Your task to perform on an android device: change the clock display to show seconds Image 0: 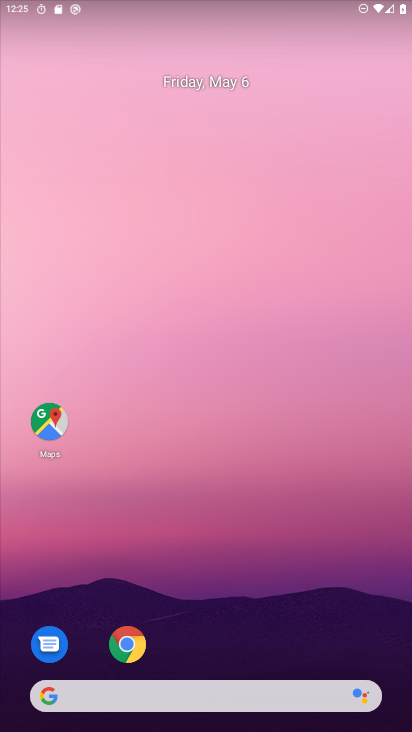
Step 0: drag from (299, 604) to (322, 181)
Your task to perform on an android device: change the clock display to show seconds Image 1: 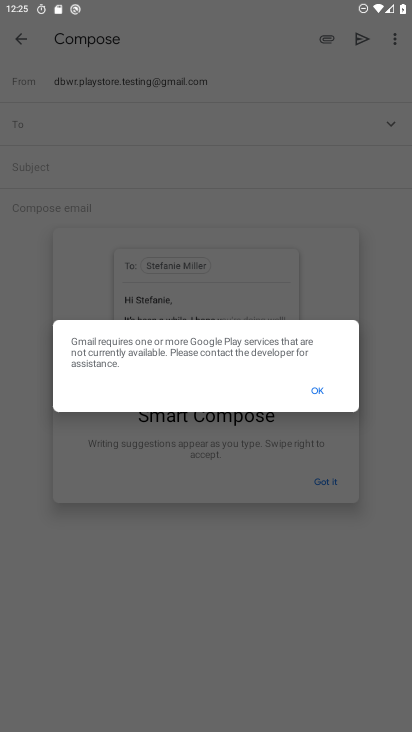
Step 1: press home button
Your task to perform on an android device: change the clock display to show seconds Image 2: 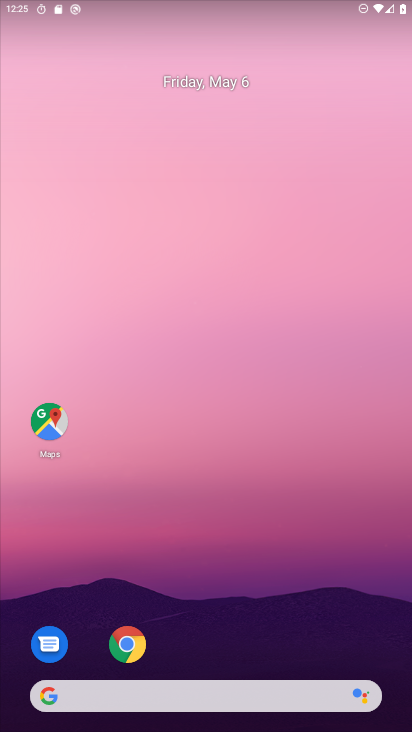
Step 2: drag from (322, 600) to (308, 96)
Your task to perform on an android device: change the clock display to show seconds Image 3: 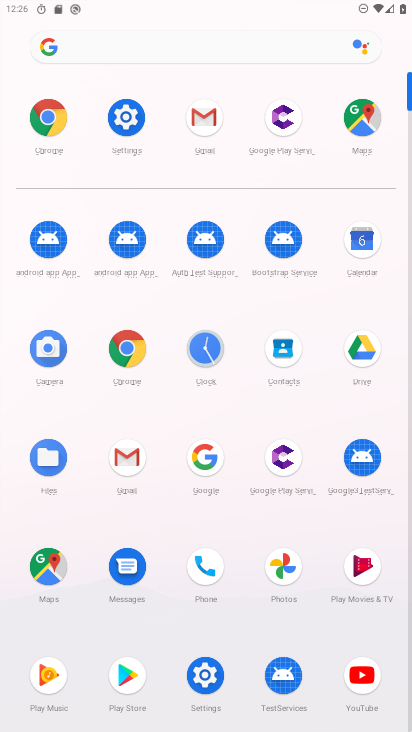
Step 3: click (211, 354)
Your task to perform on an android device: change the clock display to show seconds Image 4: 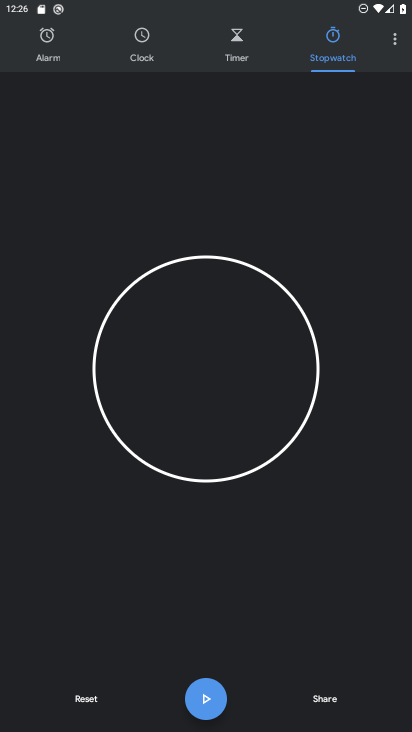
Step 4: click (385, 43)
Your task to perform on an android device: change the clock display to show seconds Image 5: 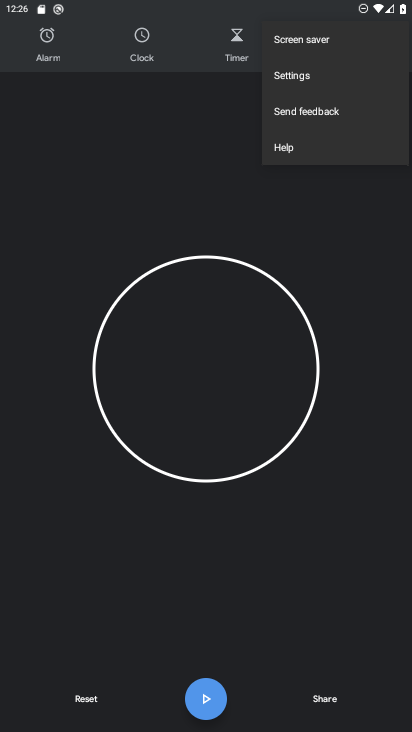
Step 5: click (315, 72)
Your task to perform on an android device: change the clock display to show seconds Image 6: 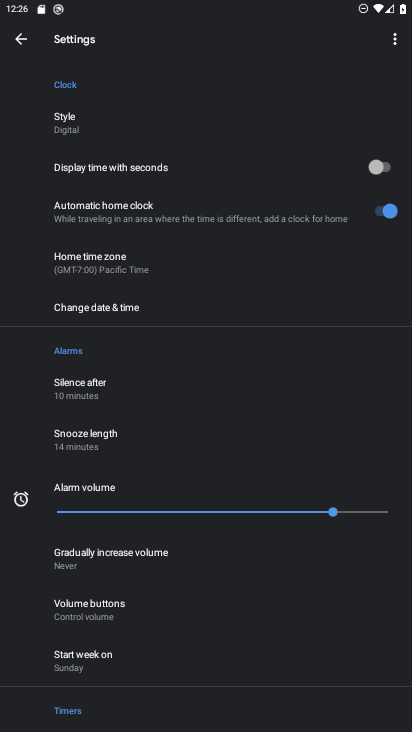
Step 6: drag from (209, 577) to (209, 276)
Your task to perform on an android device: change the clock display to show seconds Image 7: 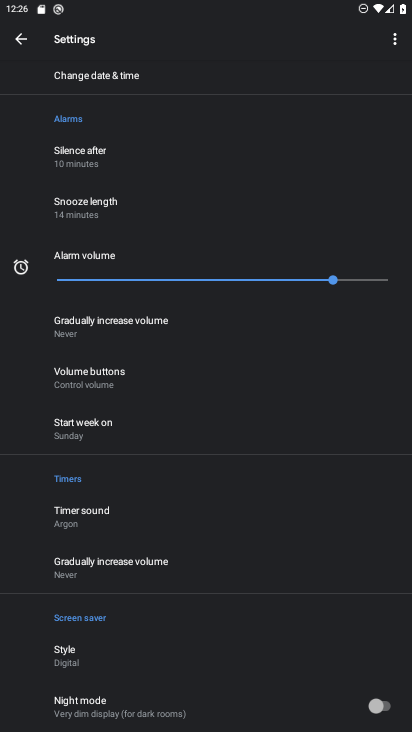
Step 7: drag from (169, 117) to (188, 445)
Your task to perform on an android device: change the clock display to show seconds Image 8: 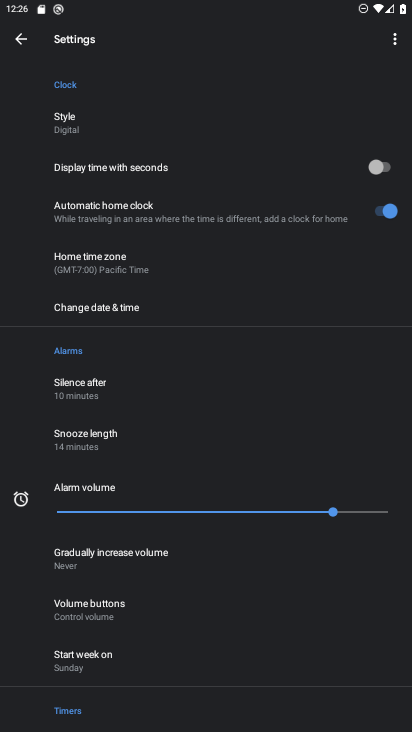
Step 8: click (389, 163)
Your task to perform on an android device: change the clock display to show seconds Image 9: 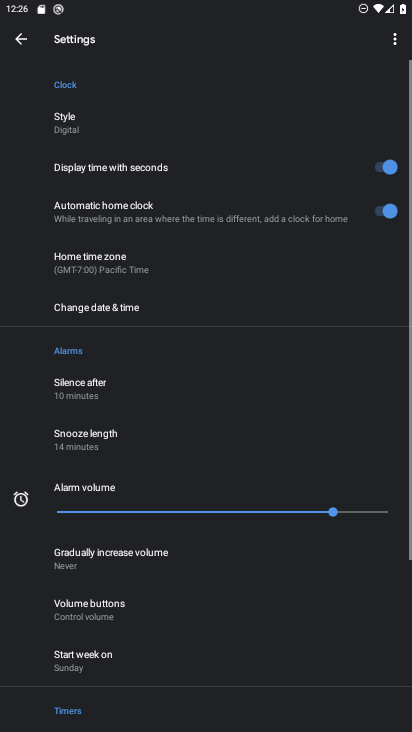
Step 9: task complete